Your task to perform on an android device: check the backup settings in the google photos Image 0: 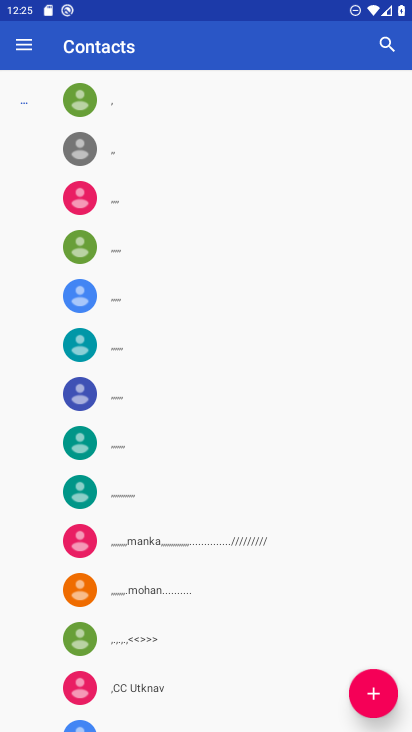
Step 0: drag from (232, 574) to (210, 252)
Your task to perform on an android device: check the backup settings in the google photos Image 1: 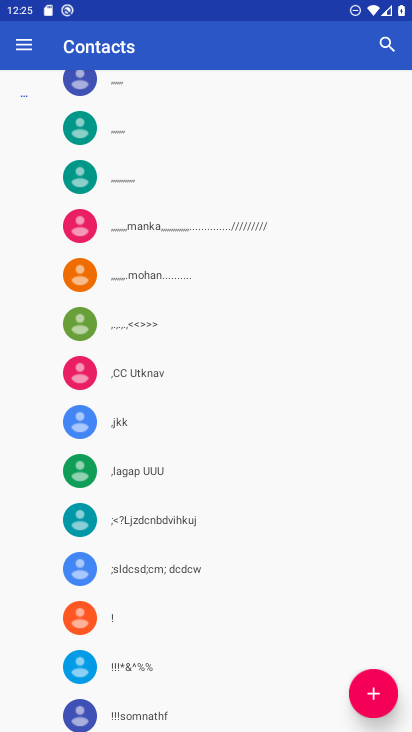
Step 1: press home button
Your task to perform on an android device: check the backup settings in the google photos Image 2: 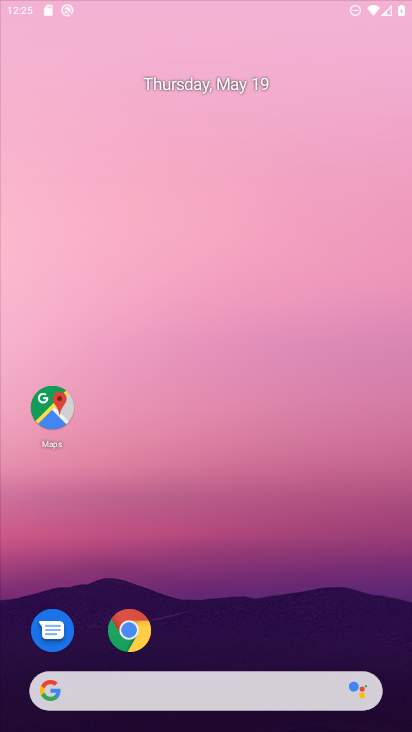
Step 2: drag from (163, 708) to (133, 338)
Your task to perform on an android device: check the backup settings in the google photos Image 3: 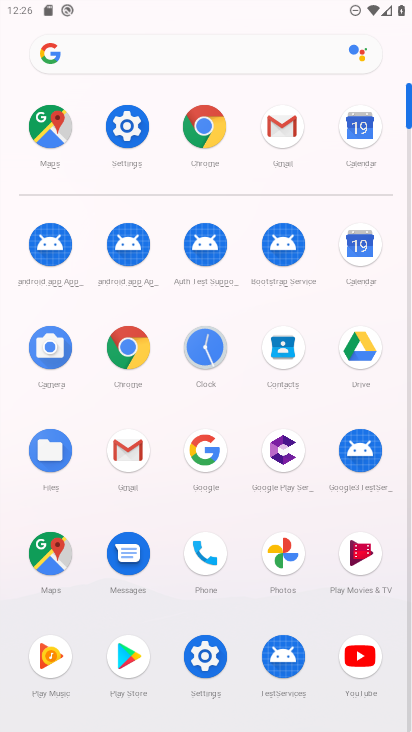
Step 3: click (282, 541)
Your task to perform on an android device: check the backup settings in the google photos Image 4: 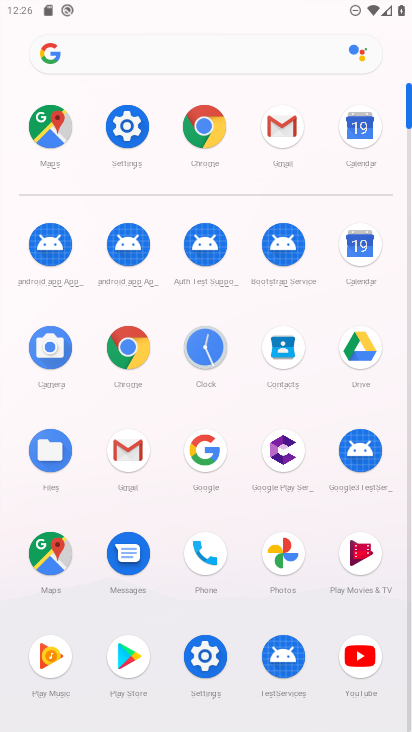
Step 4: click (282, 541)
Your task to perform on an android device: check the backup settings in the google photos Image 5: 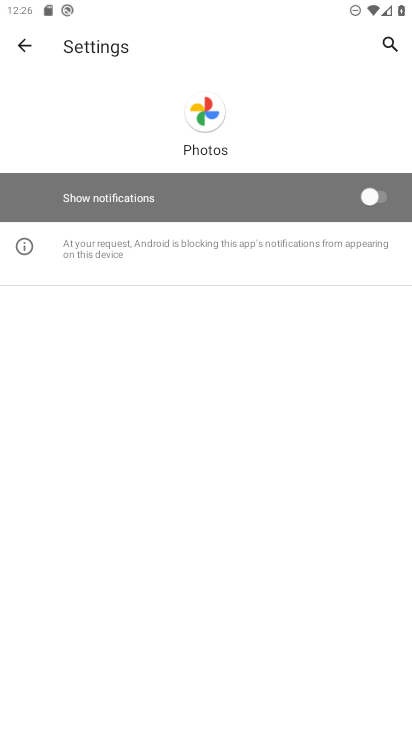
Step 5: click (28, 42)
Your task to perform on an android device: check the backup settings in the google photos Image 6: 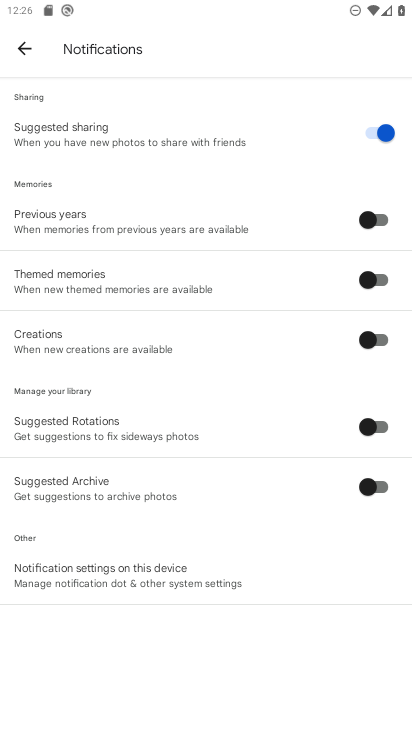
Step 6: click (28, 53)
Your task to perform on an android device: check the backup settings in the google photos Image 7: 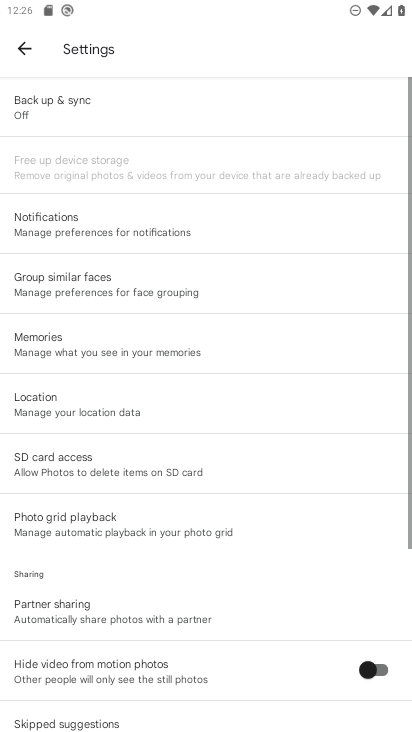
Step 7: click (93, 110)
Your task to perform on an android device: check the backup settings in the google photos Image 8: 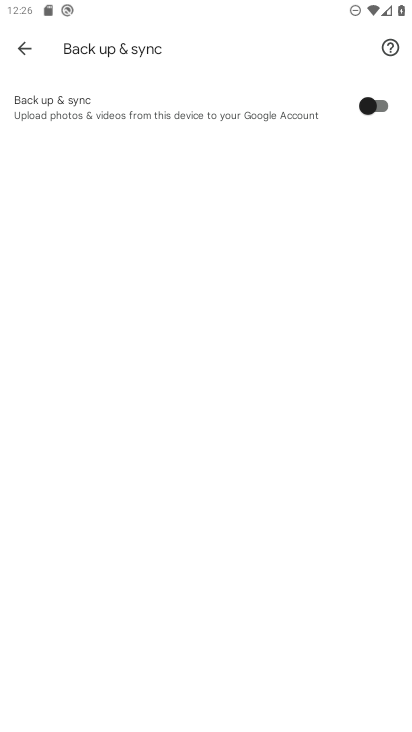
Step 8: task complete